Your task to perform on an android device: refresh tabs in the chrome app Image 0: 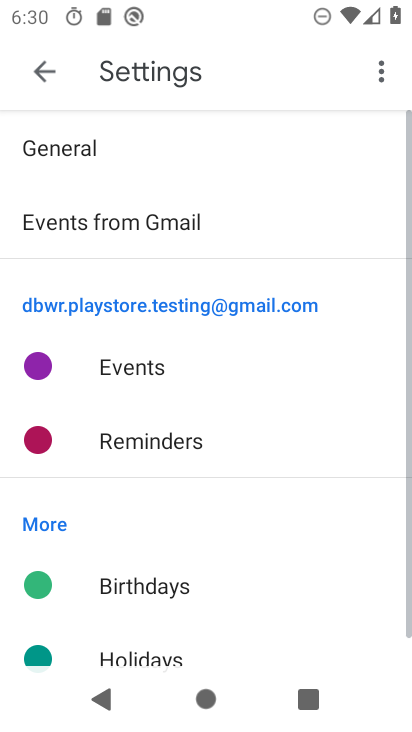
Step 0: press home button
Your task to perform on an android device: refresh tabs in the chrome app Image 1: 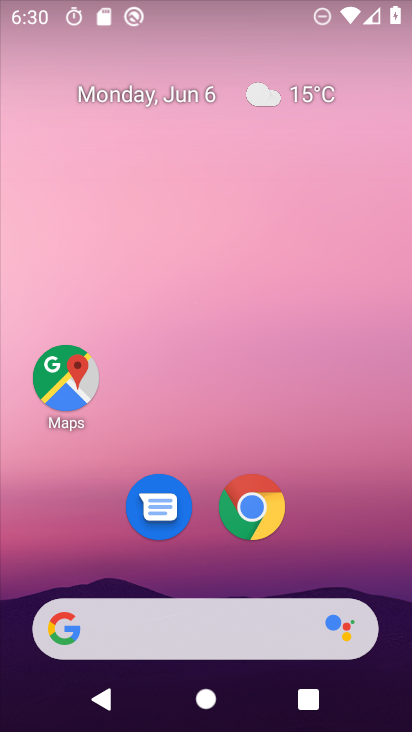
Step 1: click (244, 523)
Your task to perform on an android device: refresh tabs in the chrome app Image 2: 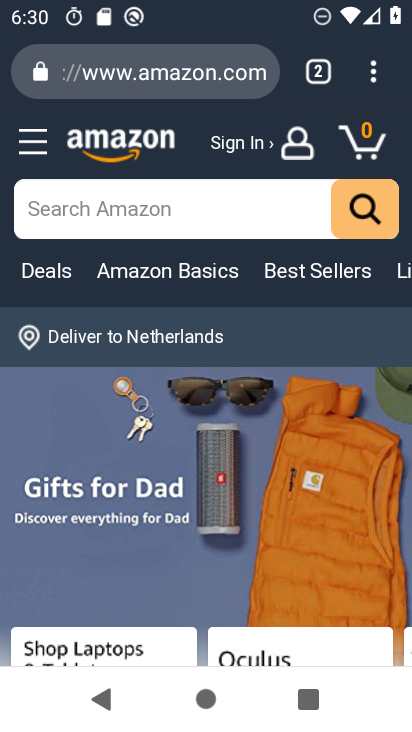
Step 2: click (365, 71)
Your task to perform on an android device: refresh tabs in the chrome app Image 3: 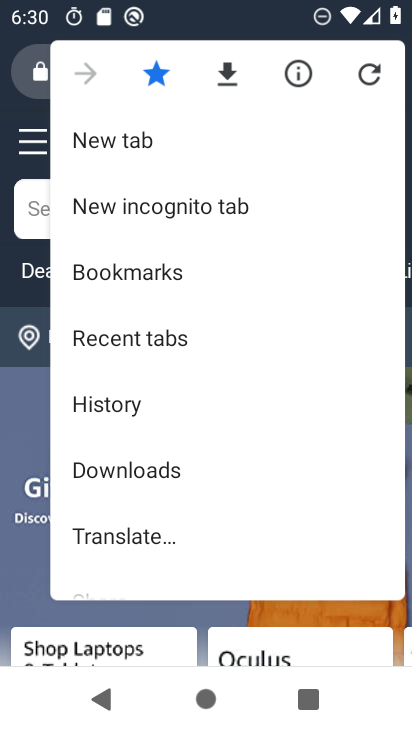
Step 3: click (366, 76)
Your task to perform on an android device: refresh tabs in the chrome app Image 4: 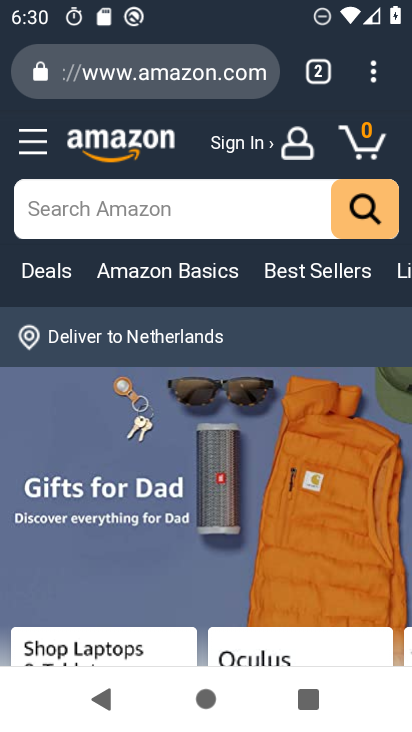
Step 4: task complete